Your task to perform on an android device: Go to Yahoo.com Image 0: 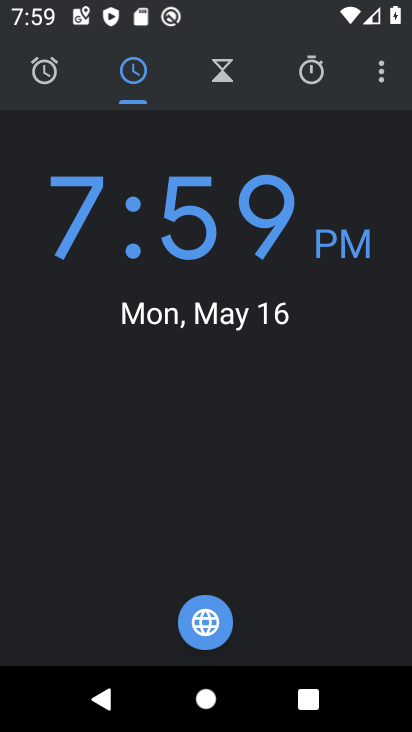
Step 0: press home button
Your task to perform on an android device: Go to Yahoo.com Image 1: 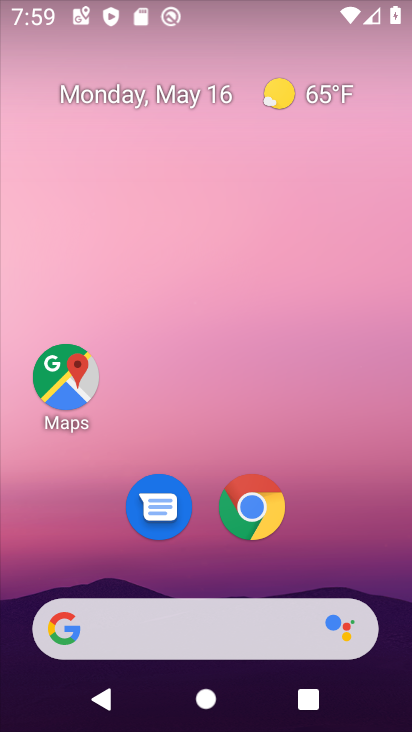
Step 1: click (250, 500)
Your task to perform on an android device: Go to Yahoo.com Image 2: 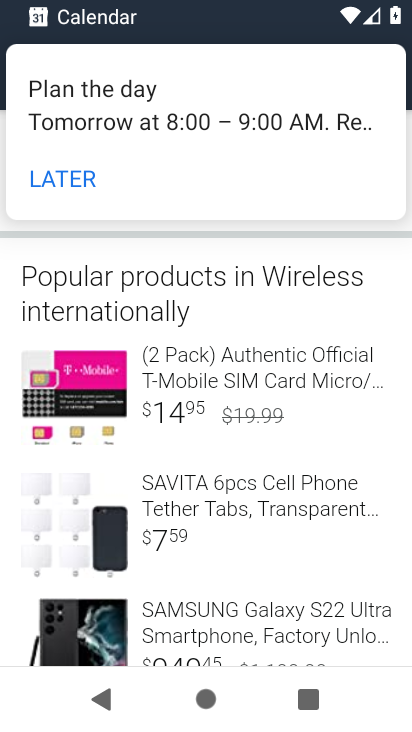
Step 2: click (314, 65)
Your task to perform on an android device: Go to Yahoo.com Image 3: 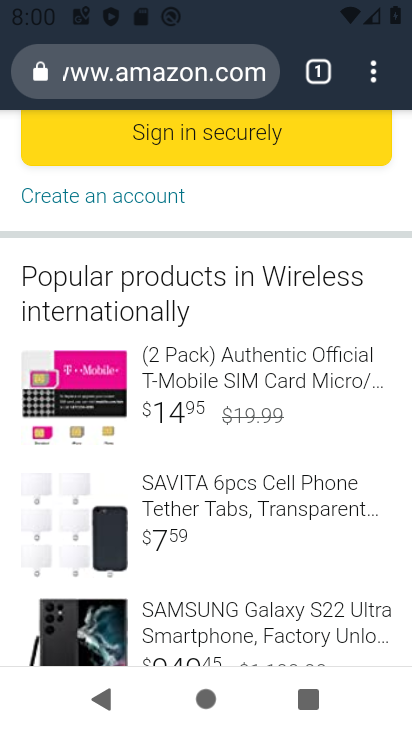
Step 3: click (314, 71)
Your task to perform on an android device: Go to Yahoo.com Image 4: 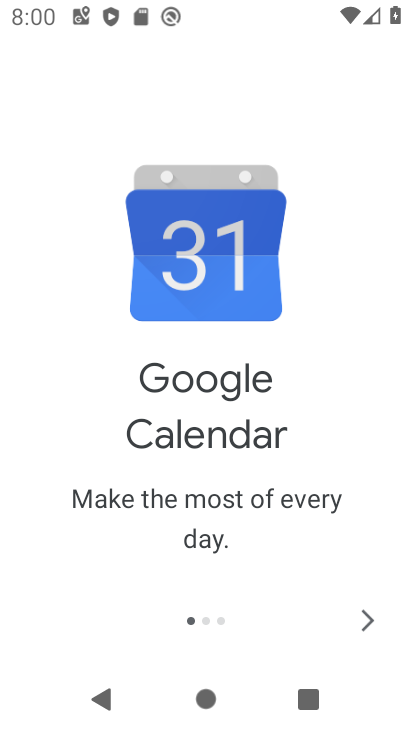
Step 4: press home button
Your task to perform on an android device: Go to Yahoo.com Image 5: 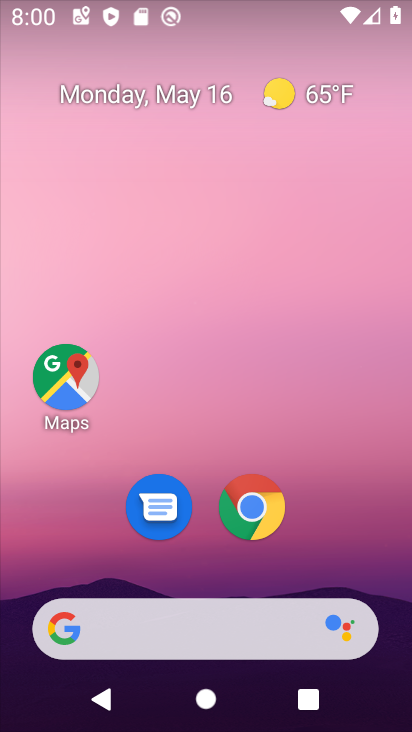
Step 5: click (260, 507)
Your task to perform on an android device: Go to Yahoo.com Image 6: 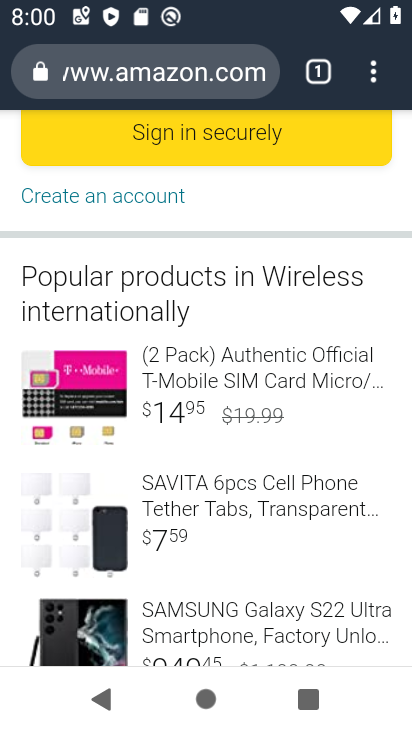
Step 6: click (317, 76)
Your task to perform on an android device: Go to Yahoo.com Image 7: 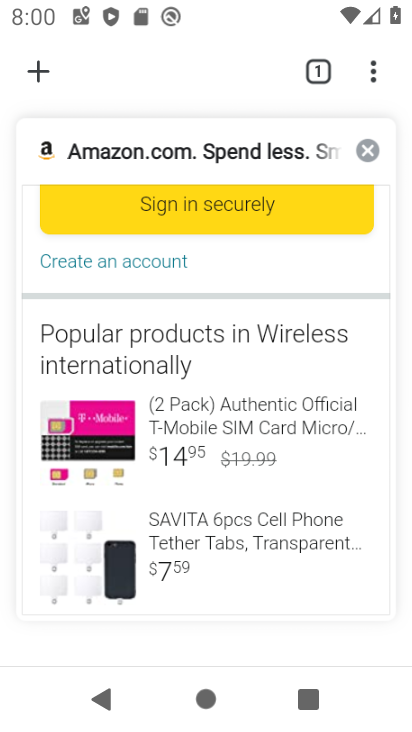
Step 7: click (372, 142)
Your task to perform on an android device: Go to Yahoo.com Image 8: 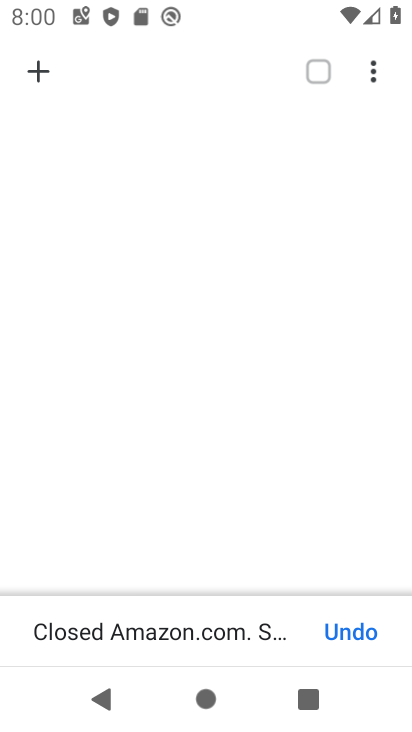
Step 8: click (45, 74)
Your task to perform on an android device: Go to Yahoo.com Image 9: 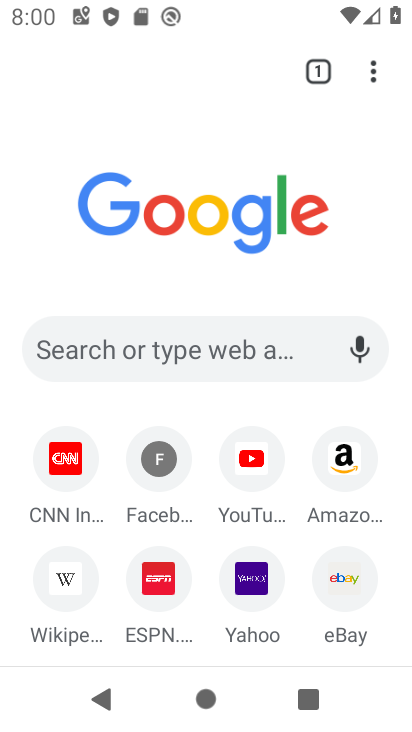
Step 9: click (244, 575)
Your task to perform on an android device: Go to Yahoo.com Image 10: 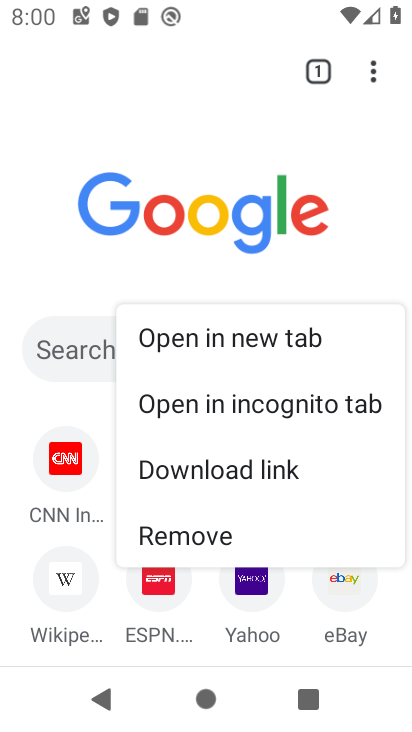
Step 10: click (247, 591)
Your task to perform on an android device: Go to Yahoo.com Image 11: 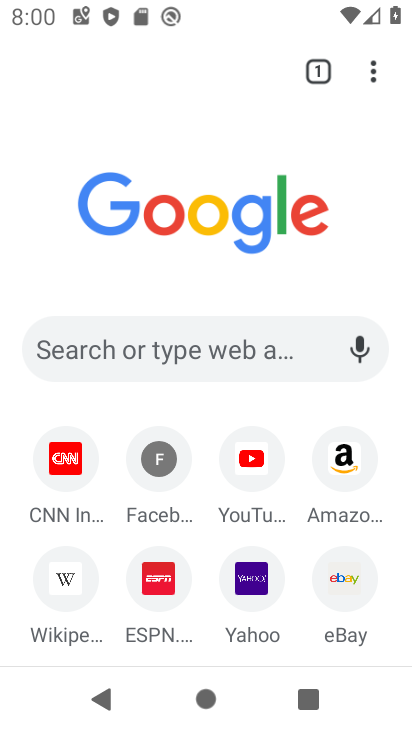
Step 11: click (251, 584)
Your task to perform on an android device: Go to Yahoo.com Image 12: 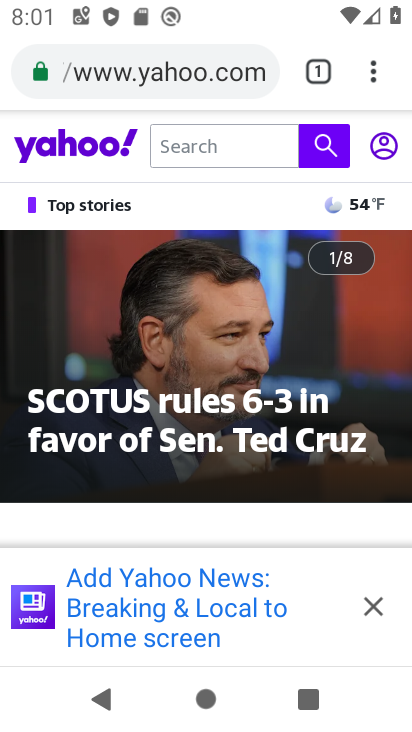
Step 12: task complete